Your task to perform on an android device: Go to sound settings Image 0: 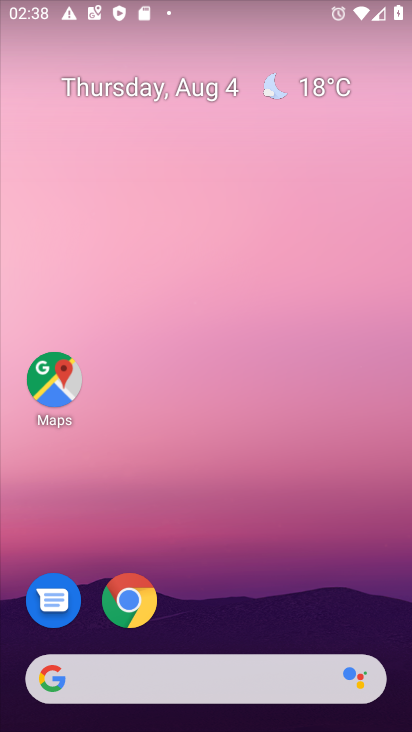
Step 0: press home button
Your task to perform on an android device: Go to sound settings Image 1: 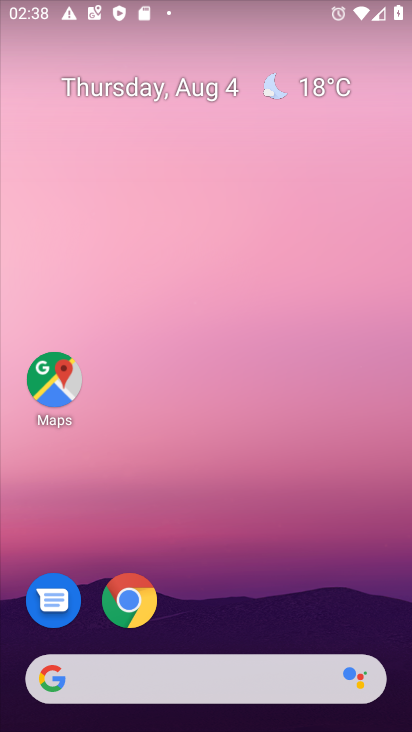
Step 1: drag from (182, 685) to (309, 164)
Your task to perform on an android device: Go to sound settings Image 2: 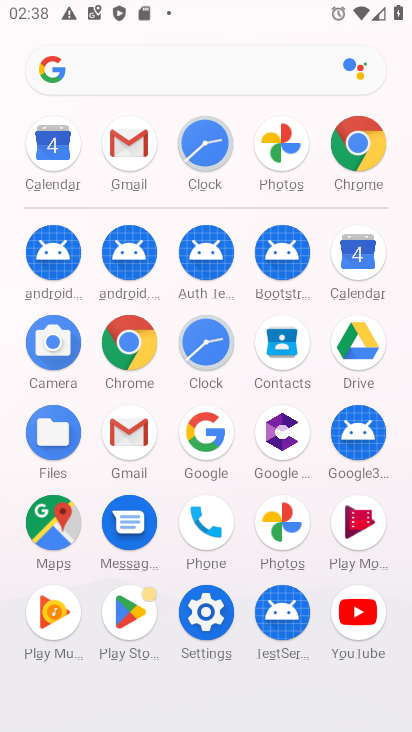
Step 2: click (200, 611)
Your task to perform on an android device: Go to sound settings Image 3: 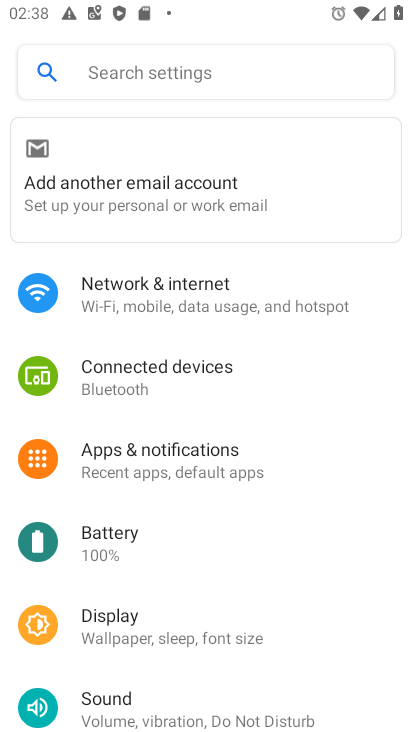
Step 3: drag from (253, 626) to (358, 267)
Your task to perform on an android device: Go to sound settings Image 4: 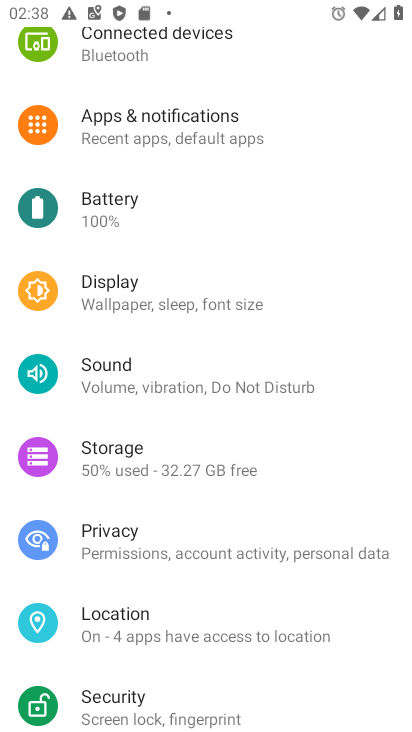
Step 4: click (118, 360)
Your task to perform on an android device: Go to sound settings Image 5: 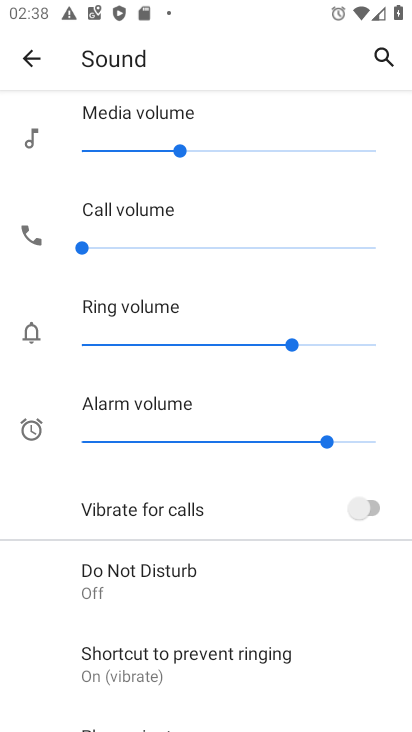
Step 5: task complete